Your task to perform on an android device: set the timer Image 0: 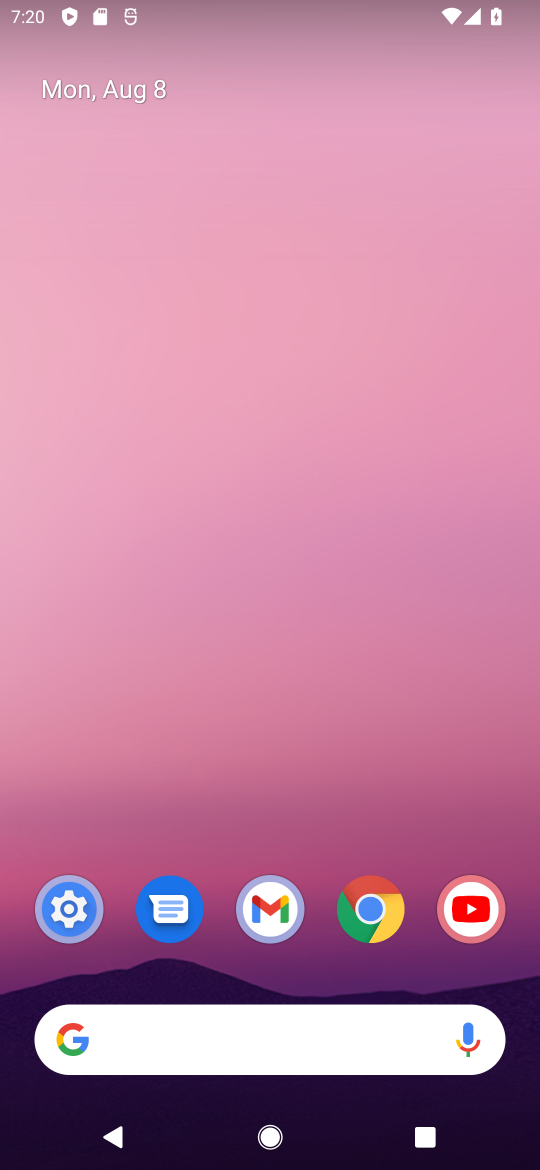
Step 0: drag from (254, 857) to (275, 155)
Your task to perform on an android device: set the timer Image 1: 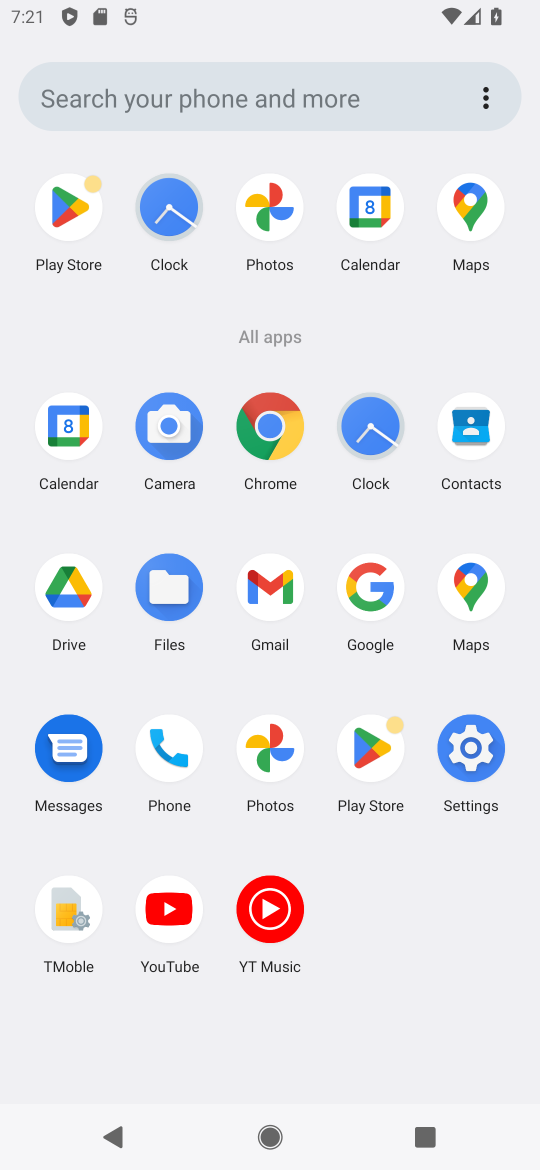
Step 1: click (385, 446)
Your task to perform on an android device: set the timer Image 2: 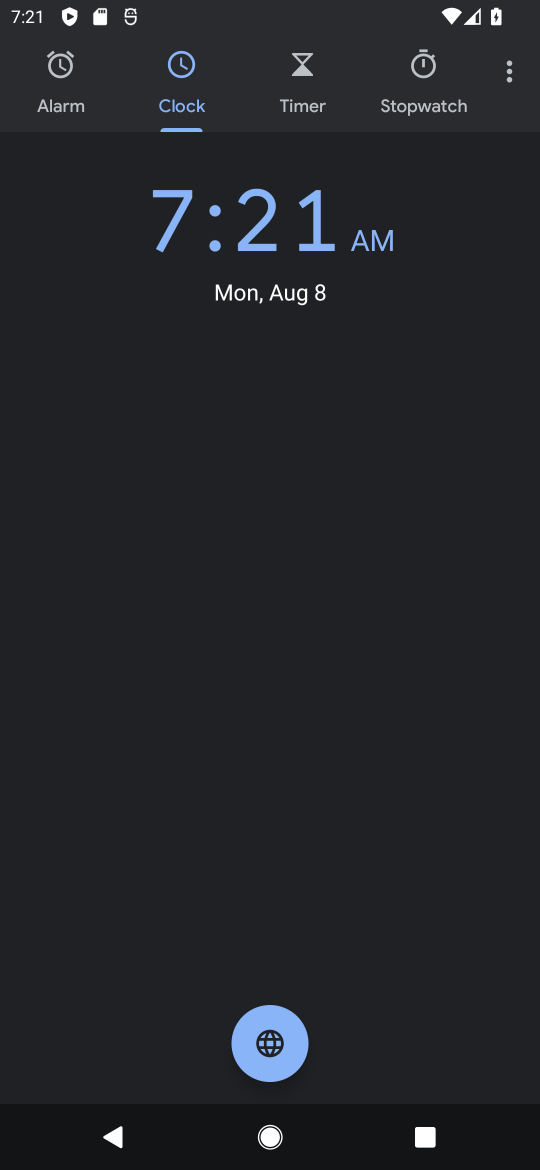
Step 2: click (322, 78)
Your task to perform on an android device: set the timer Image 3: 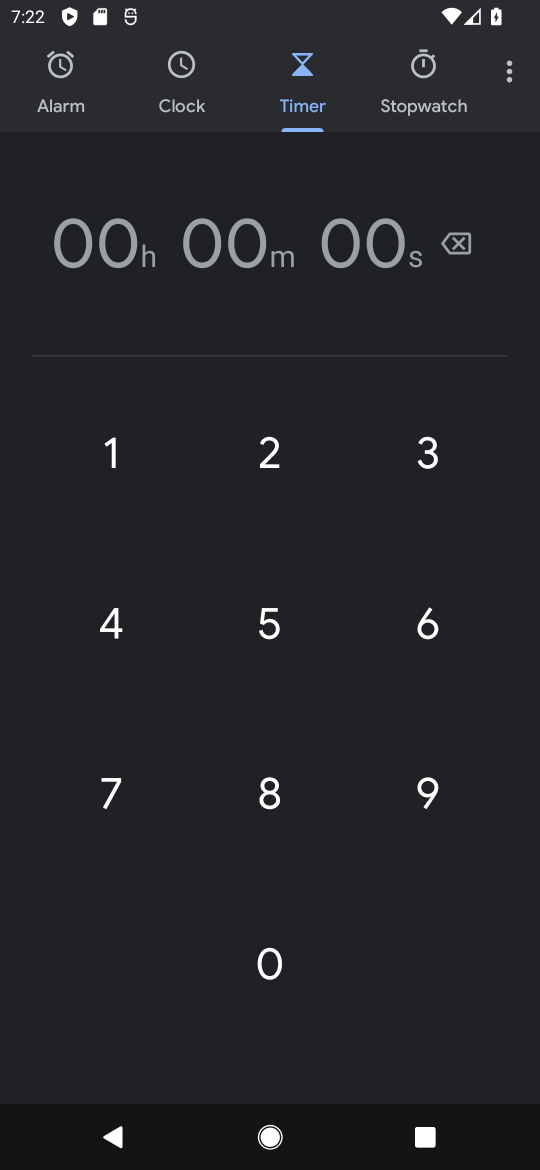
Step 3: click (136, 448)
Your task to perform on an android device: set the timer Image 4: 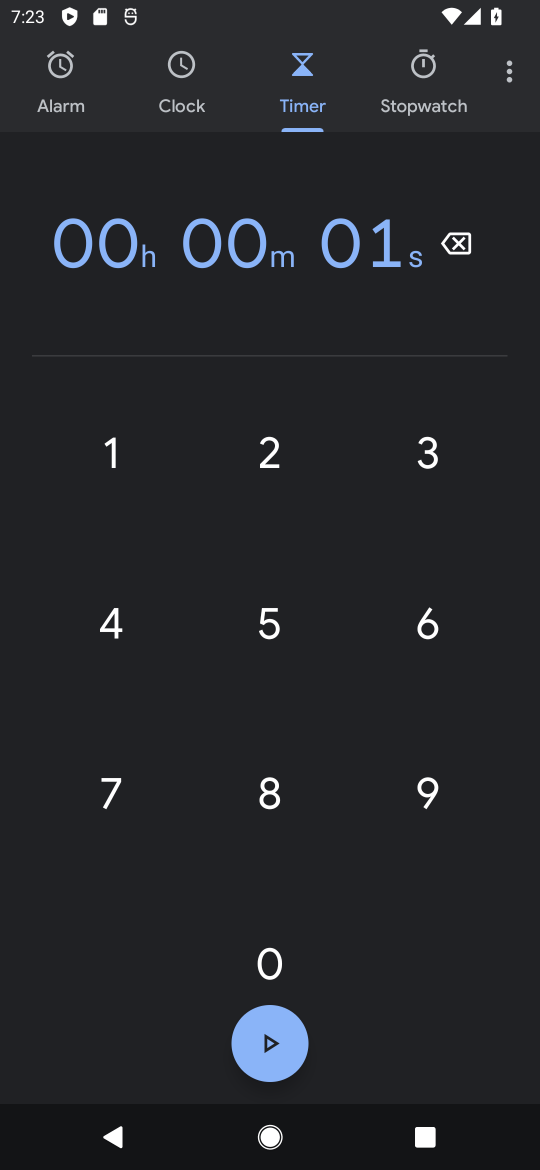
Step 4: click (291, 1032)
Your task to perform on an android device: set the timer Image 5: 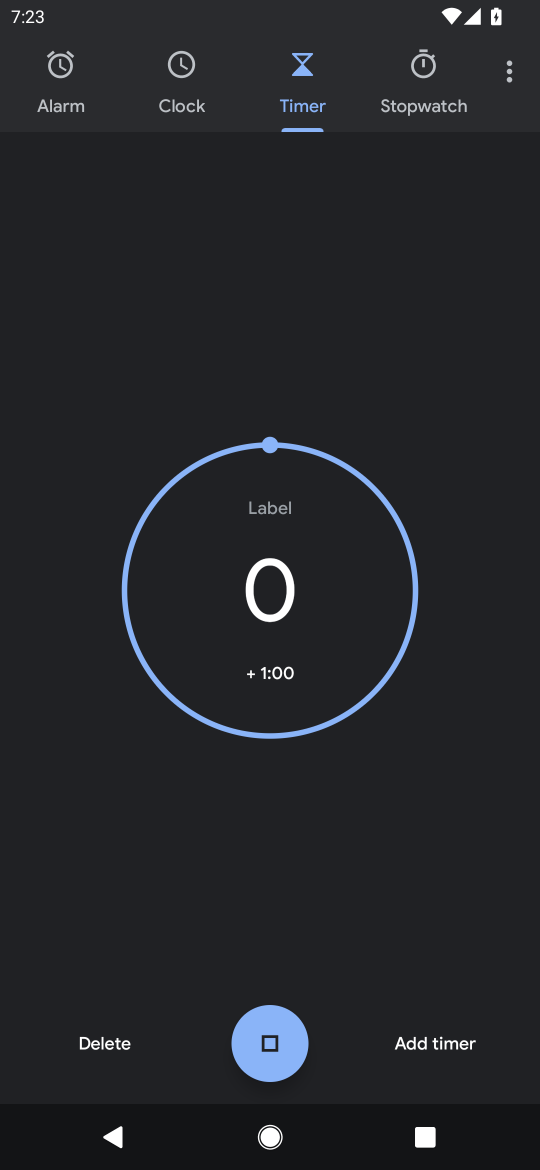
Step 5: task complete